Your task to perform on an android device: toggle sleep mode Image 0: 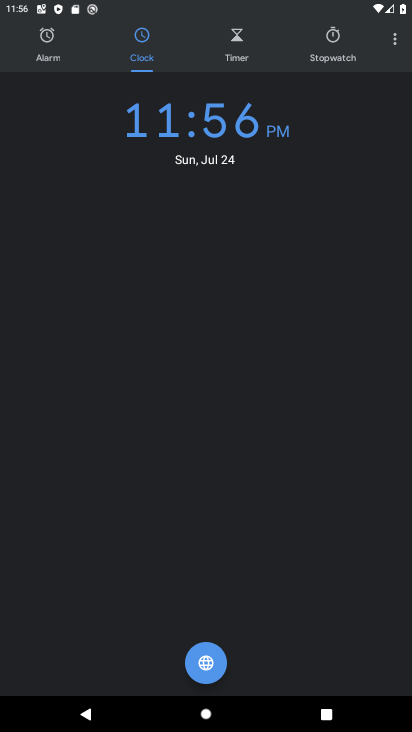
Step 0: press home button
Your task to perform on an android device: toggle sleep mode Image 1: 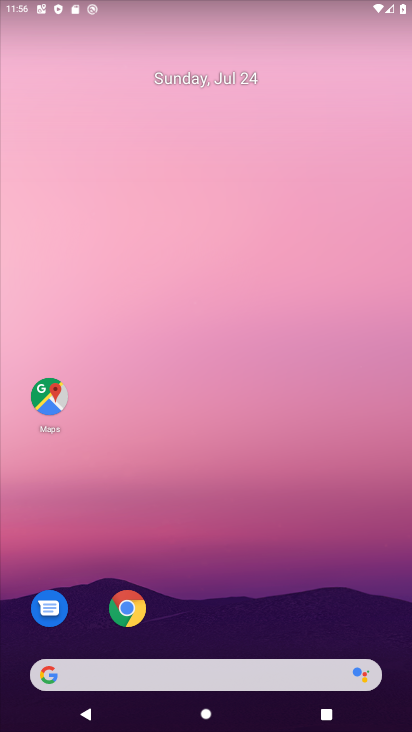
Step 1: drag from (253, 604) to (244, 26)
Your task to perform on an android device: toggle sleep mode Image 2: 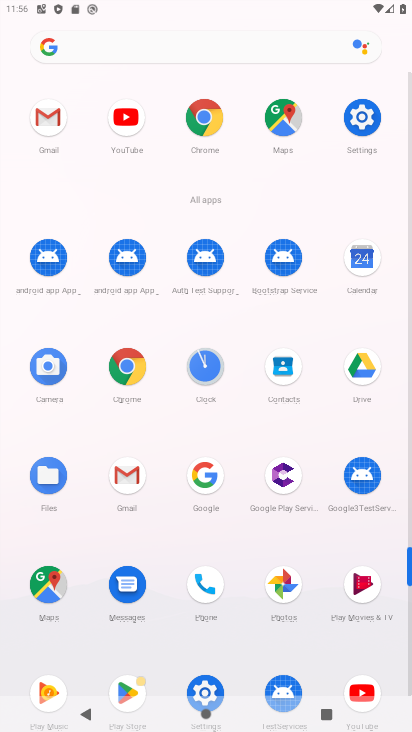
Step 2: click (380, 113)
Your task to perform on an android device: toggle sleep mode Image 3: 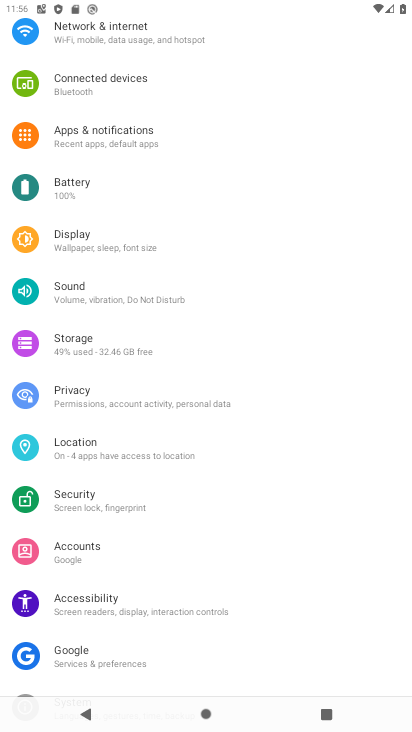
Step 3: click (81, 240)
Your task to perform on an android device: toggle sleep mode Image 4: 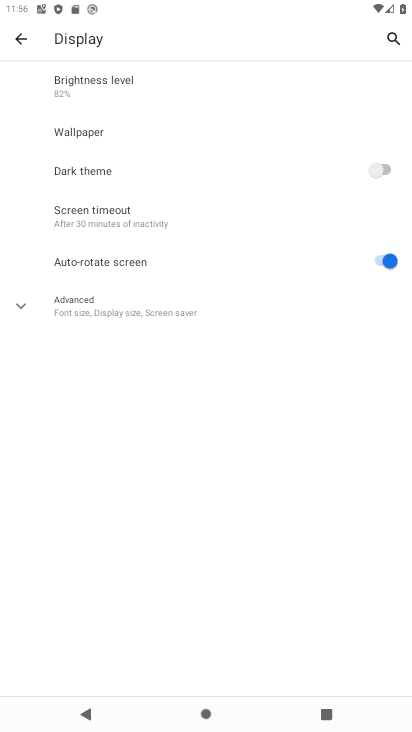
Step 4: click (31, 310)
Your task to perform on an android device: toggle sleep mode Image 5: 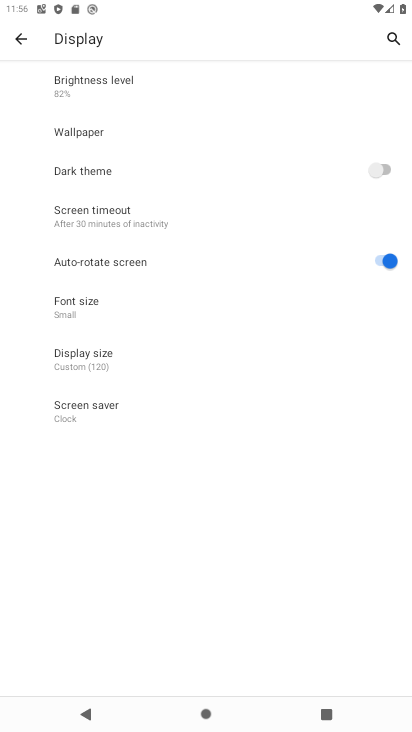
Step 5: task complete